Your task to perform on an android device: change your default location settings in chrome Image 0: 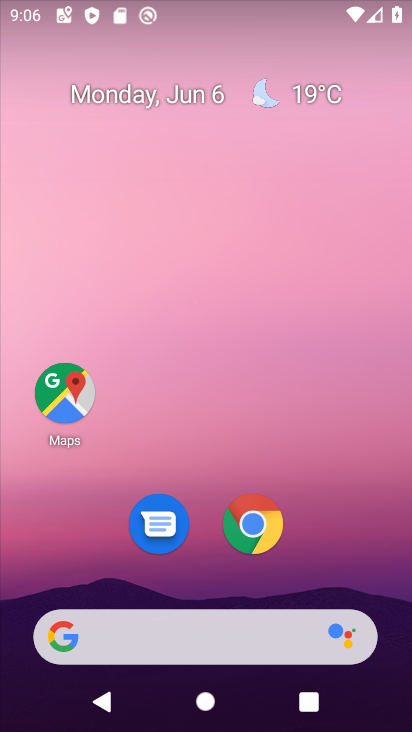
Step 0: click (261, 523)
Your task to perform on an android device: change your default location settings in chrome Image 1: 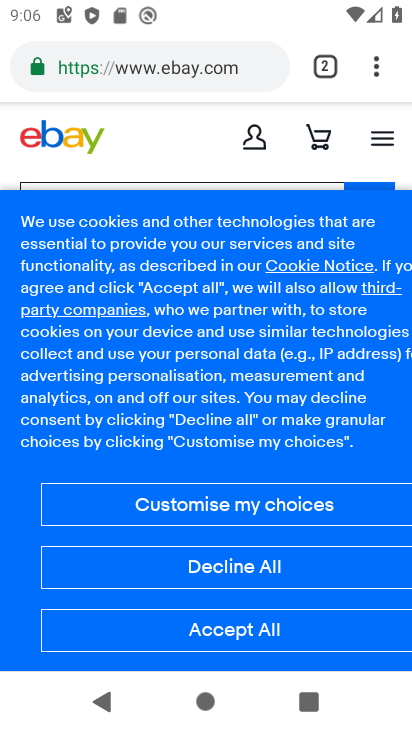
Step 1: click (375, 70)
Your task to perform on an android device: change your default location settings in chrome Image 2: 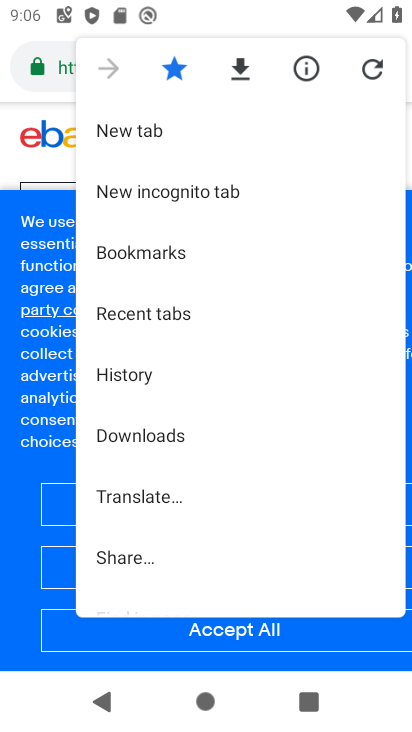
Step 2: drag from (286, 396) to (275, 169)
Your task to perform on an android device: change your default location settings in chrome Image 3: 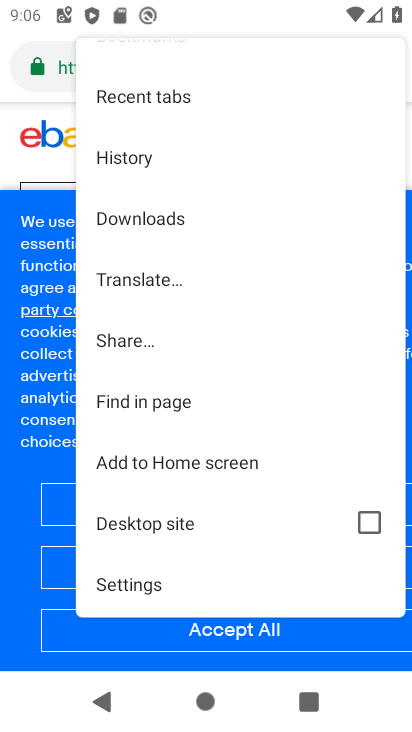
Step 3: click (158, 577)
Your task to perform on an android device: change your default location settings in chrome Image 4: 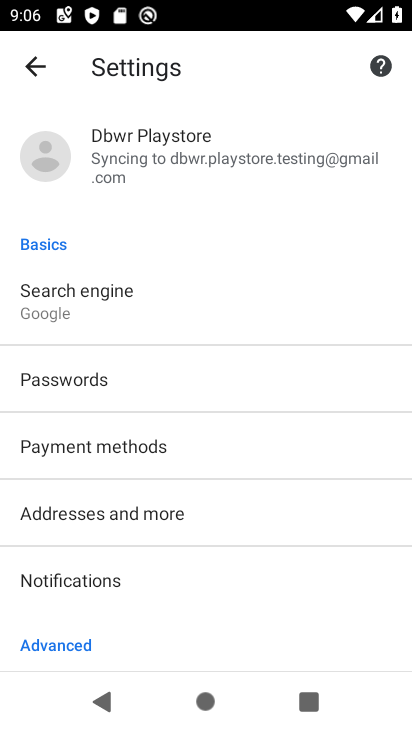
Step 4: drag from (199, 571) to (229, 226)
Your task to perform on an android device: change your default location settings in chrome Image 5: 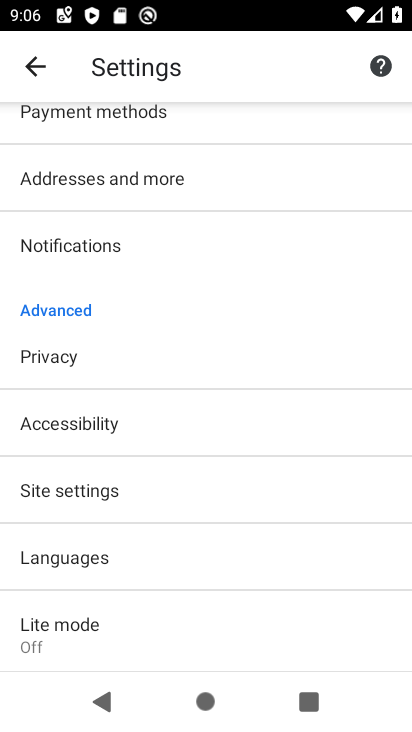
Step 5: click (197, 484)
Your task to perform on an android device: change your default location settings in chrome Image 6: 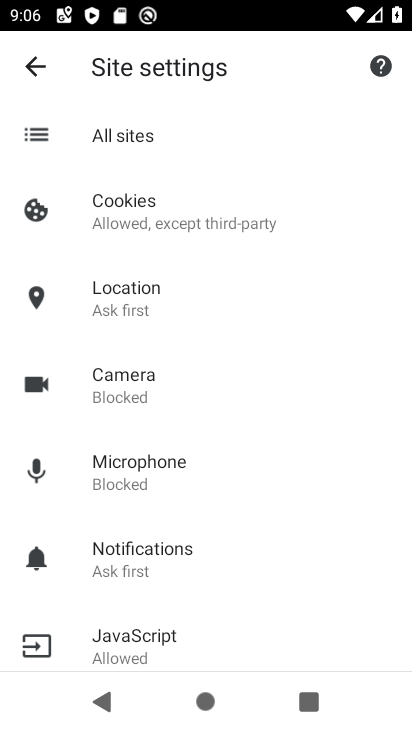
Step 6: click (187, 306)
Your task to perform on an android device: change your default location settings in chrome Image 7: 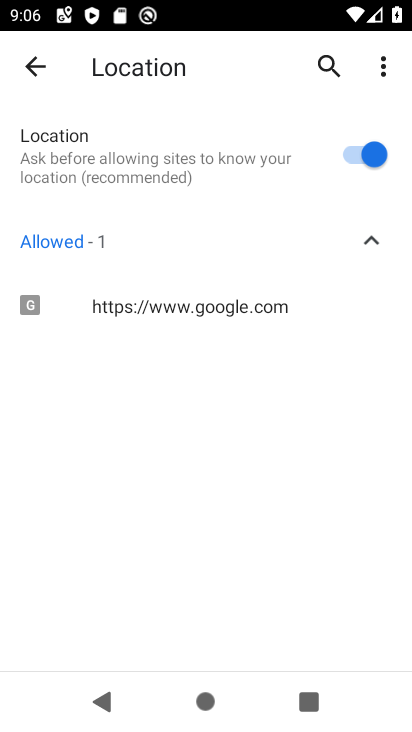
Step 7: click (357, 150)
Your task to perform on an android device: change your default location settings in chrome Image 8: 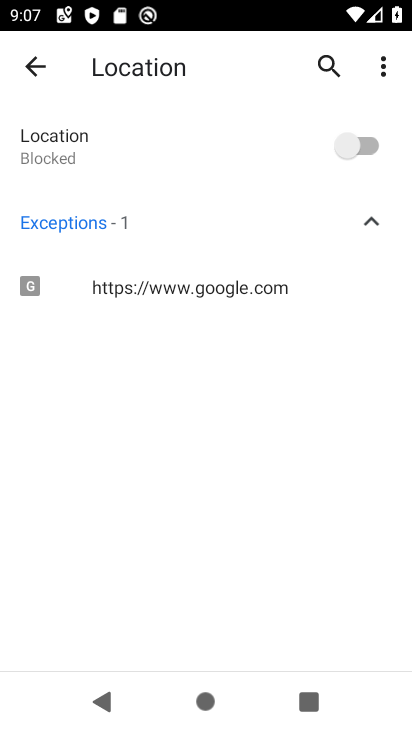
Step 8: task complete